Your task to perform on an android device: add a label to a message in the gmail app Image 0: 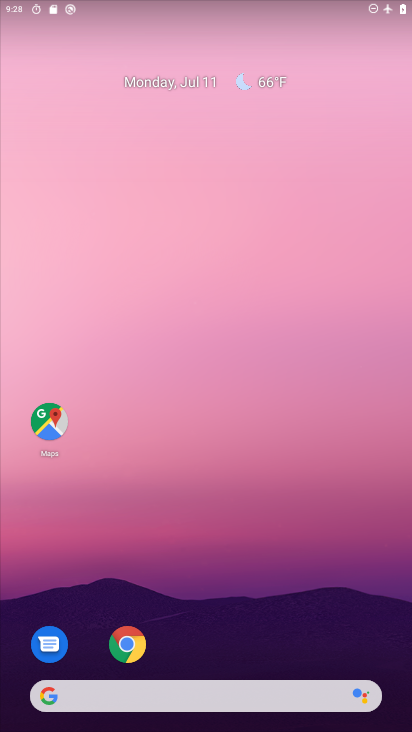
Step 0: drag from (360, 638) to (254, 212)
Your task to perform on an android device: add a label to a message in the gmail app Image 1: 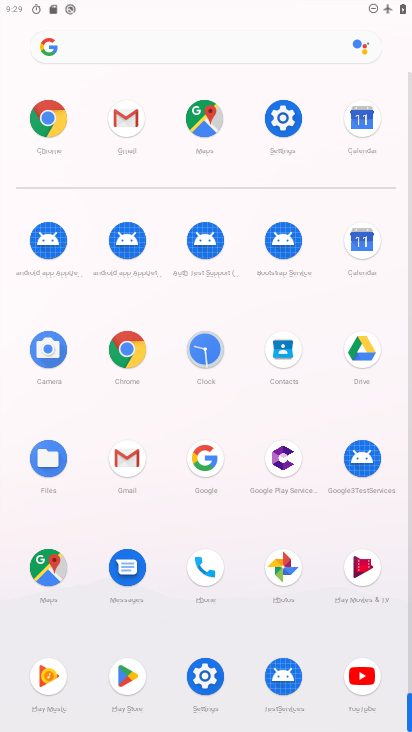
Step 1: click (124, 130)
Your task to perform on an android device: add a label to a message in the gmail app Image 2: 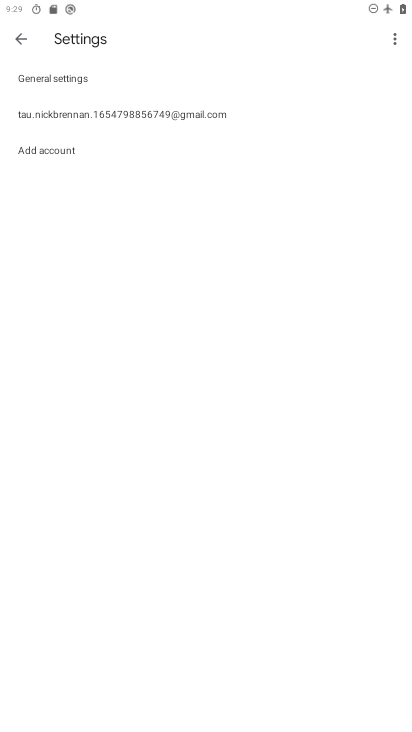
Step 2: click (29, 38)
Your task to perform on an android device: add a label to a message in the gmail app Image 3: 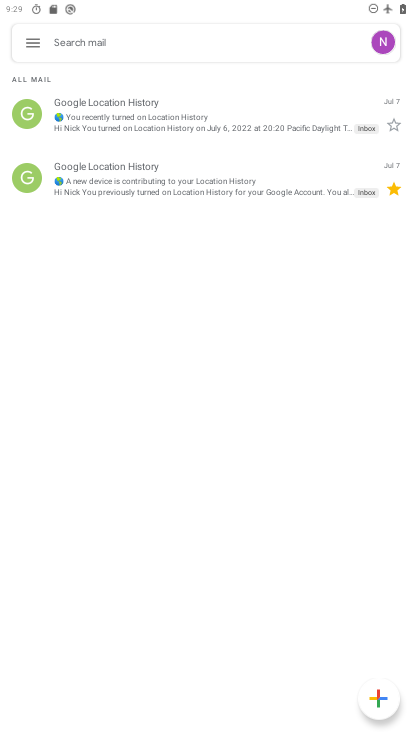
Step 3: drag from (274, 228) to (321, 579)
Your task to perform on an android device: add a label to a message in the gmail app Image 4: 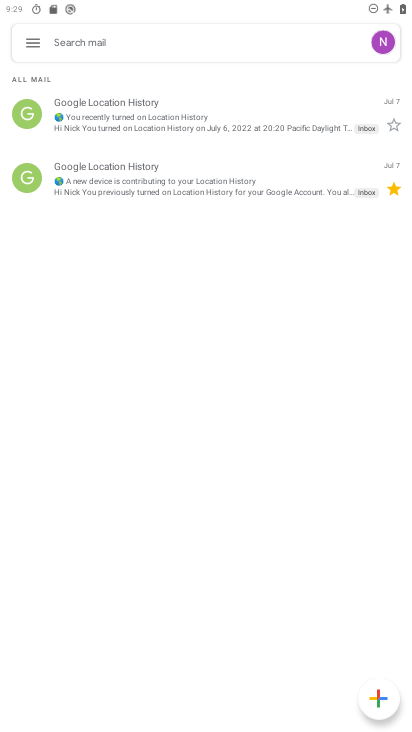
Step 4: click (208, 115)
Your task to perform on an android device: add a label to a message in the gmail app Image 5: 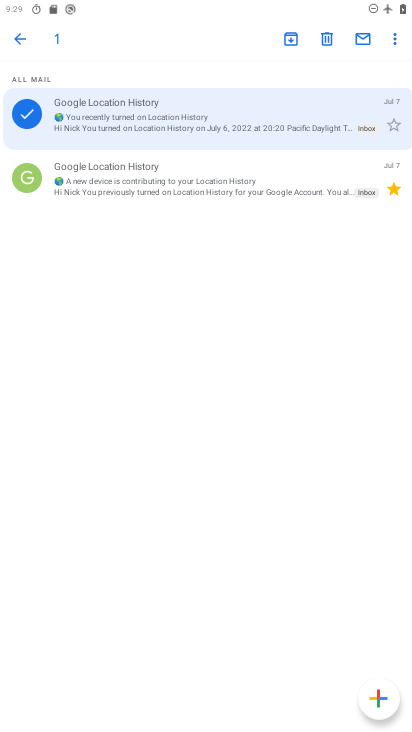
Step 5: click (393, 38)
Your task to perform on an android device: add a label to a message in the gmail app Image 6: 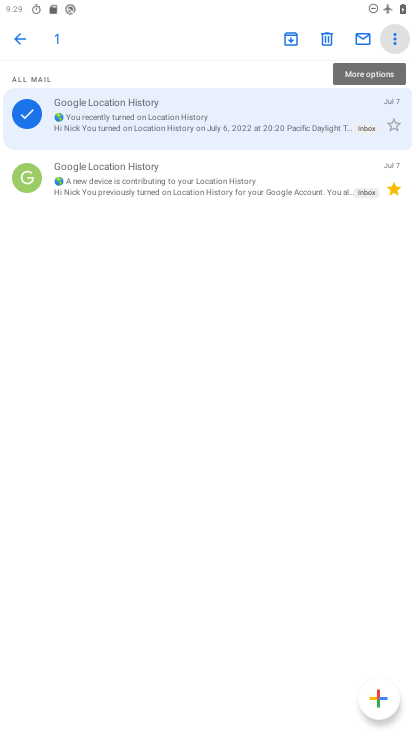
Step 6: click (393, 38)
Your task to perform on an android device: add a label to a message in the gmail app Image 7: 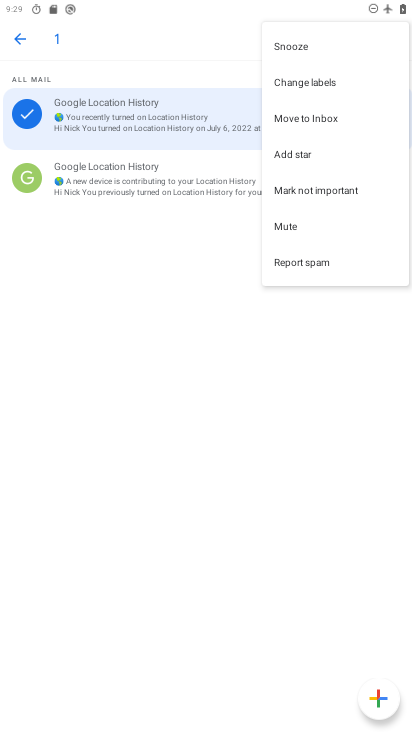
Step 7: task complete